Your task to perform on an android device: Open eBay Image 0: 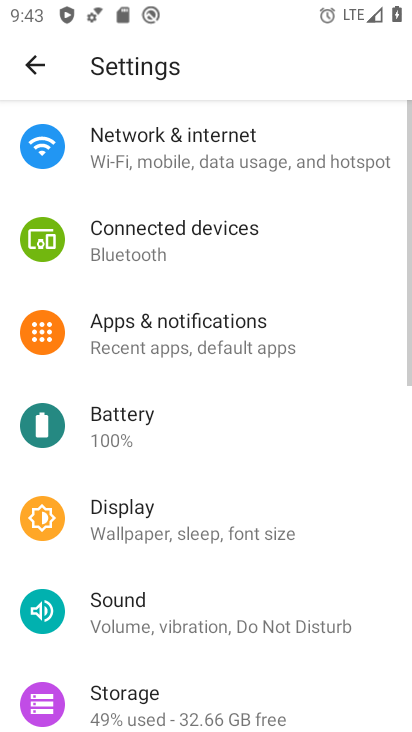
Step 0: press home button
Your task to perform on an android device: Open eBay Image 1: 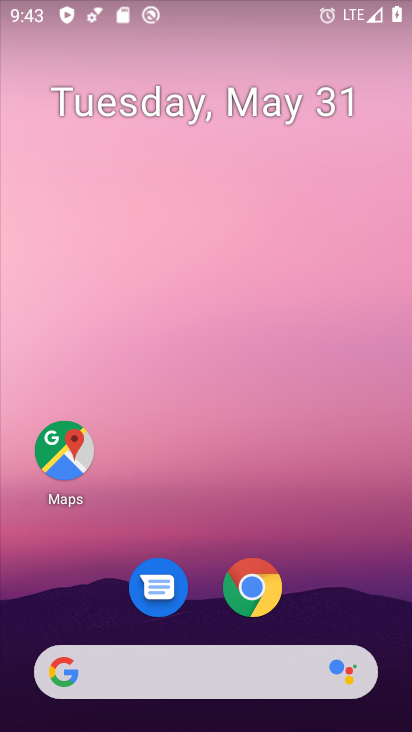
Step 1: drag from (333, 595) to (350, 189)
Your task to perform on an android device: Open eBay Image 2: 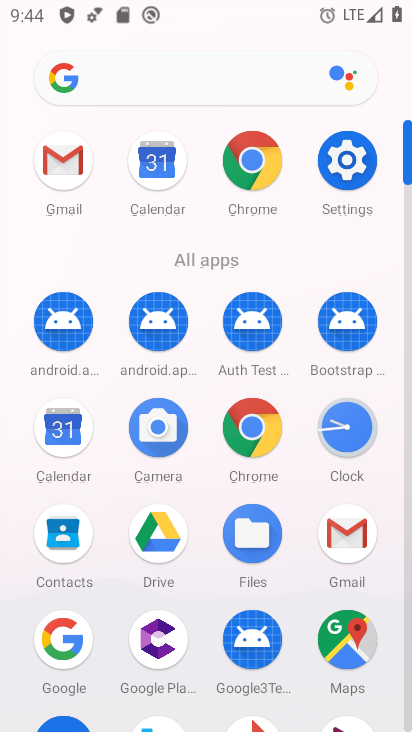
Step 2: click (260, 434)
Your task to perform on an android device: Open eBay Image 3: 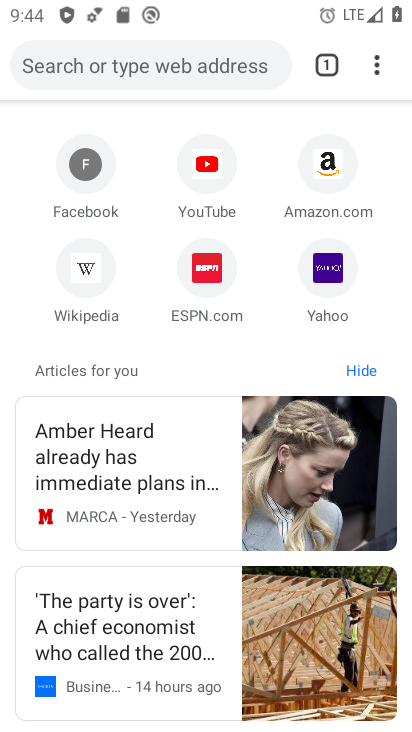
Step 3: click (235, 72)
Your task to perform on an android device: Open eBay Image 4: 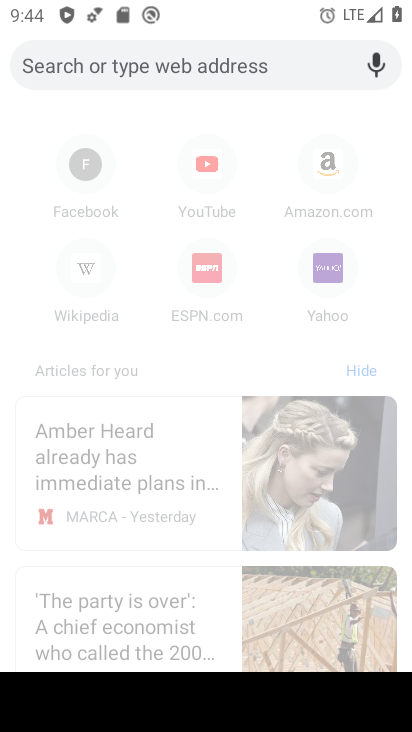
Step 4: type "ebay "
Your task to perform on an android device: Open eBay Image 5: 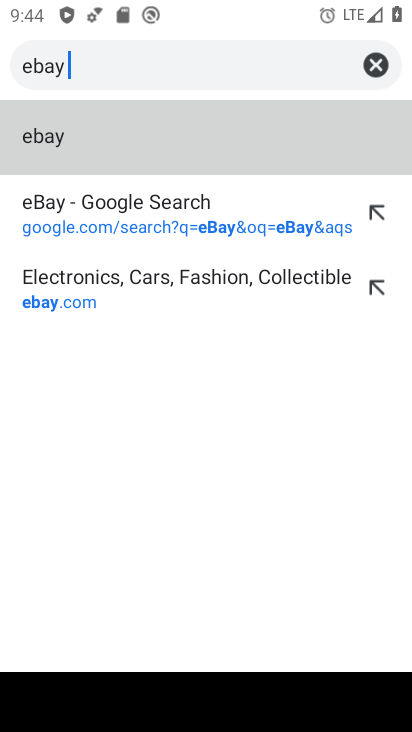
Step 5: click (131, 213)
Your task to perform on an android device: Open eBay Image 6: 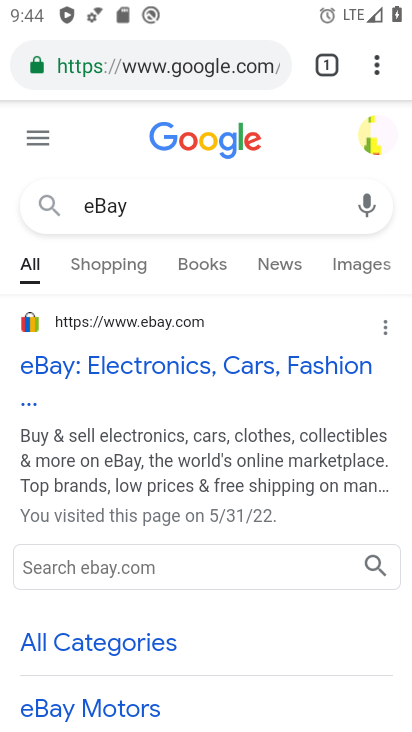
Step 6: task complete